Your task to perform on an android device: change keyboard looks Image 0: 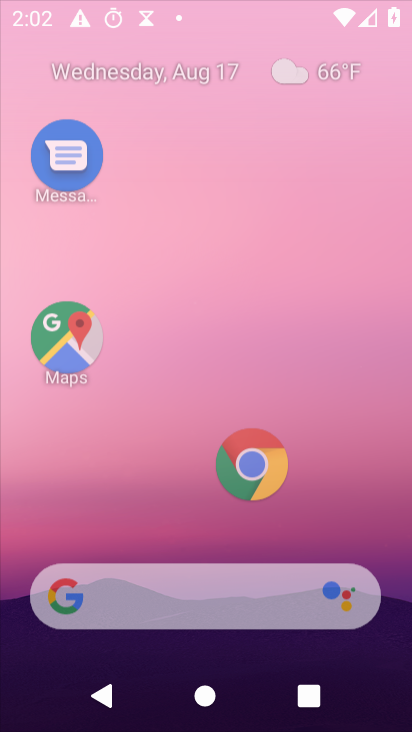
Step 0: press home button
Your task to perform on an android device: change keyboard looks Image 1: 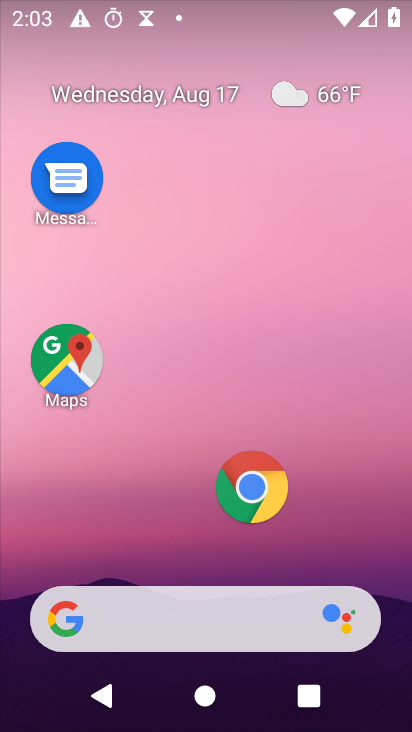
Step 1: drag from (169, 571) to (110, 10)
Your task to perform on an android device: change keyboard looks Image 2: 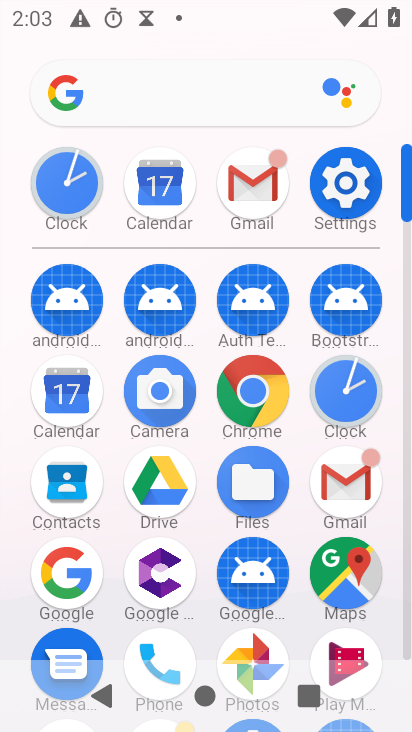
Step 2: click (345, 188)
Your task to perform on an android device: change keyboard looks Image 3: 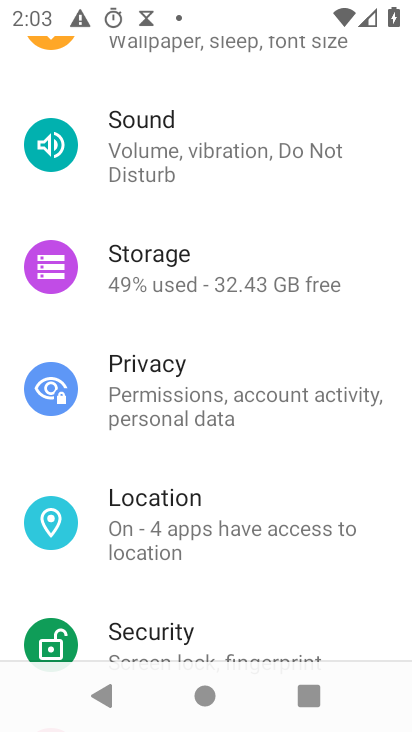
Step 3: drag from (329, 606) to (289, 0)
Your task to perform on an android device: change keyboard looks Image 4: 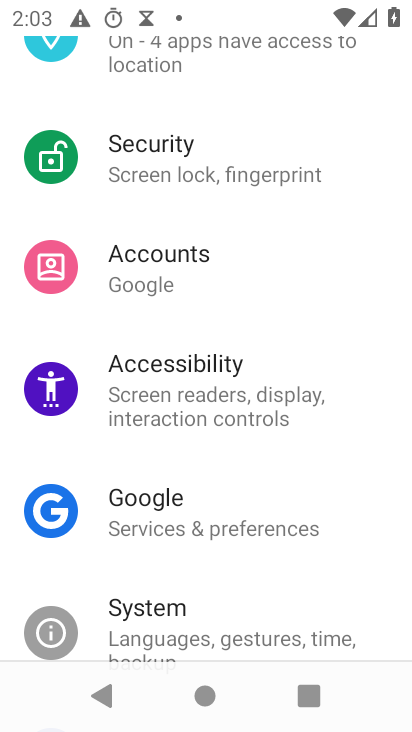
Step 4: click (133, 627)
Your task to perform on an android device: change keyboard looks Image 5: 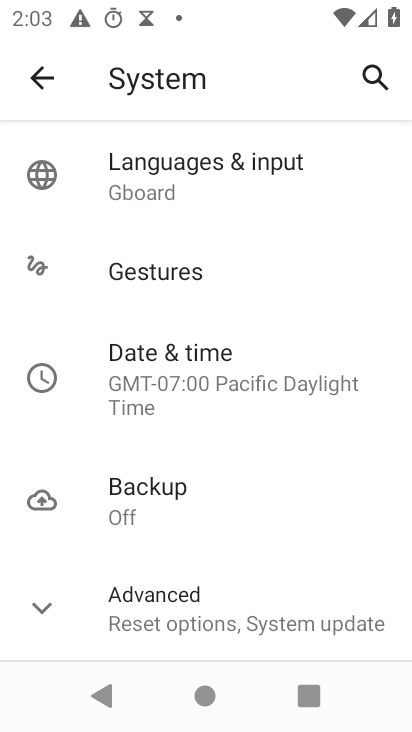
Step 5: click (183, 160)
Your task to perform on an android device: change keyboard looks Image 6: 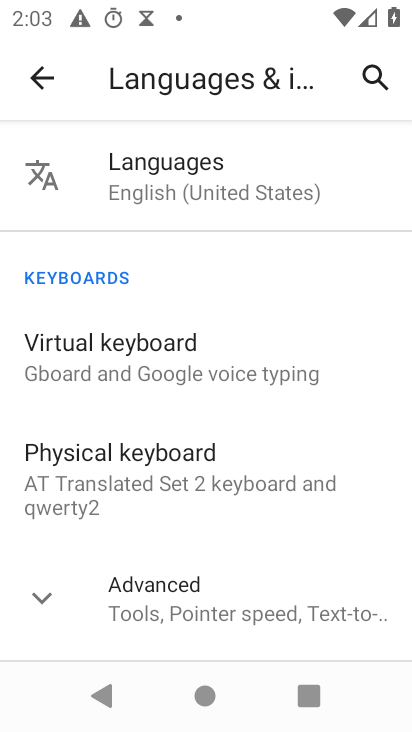
Step 6: click (131, 355)
Your task to perform on an android device: change keyboard looks Image 7: 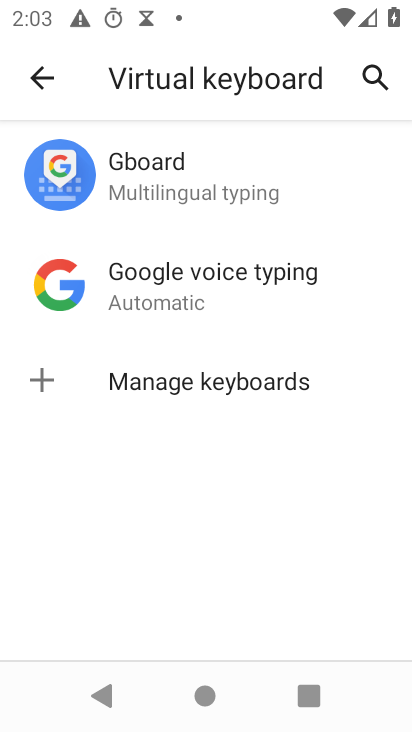
Step 7: click (128, 171)
Your task to perform on an android device: change keyboard looks Image 8: 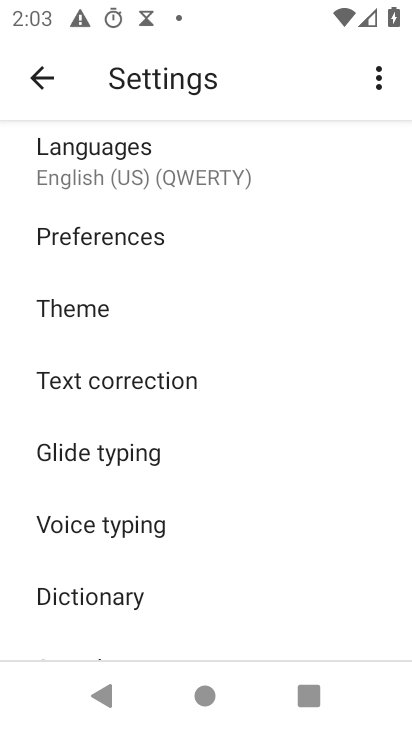
Step 8: click (59, 318)
Your task to perform on an android device: change keyboard looks Image 9: 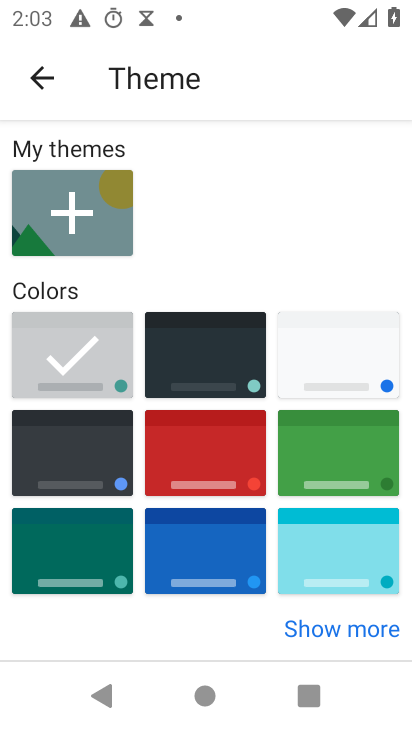
Step 9: click (194, 357)
Your task to perform on an android device: change keyboard looks Image 10: 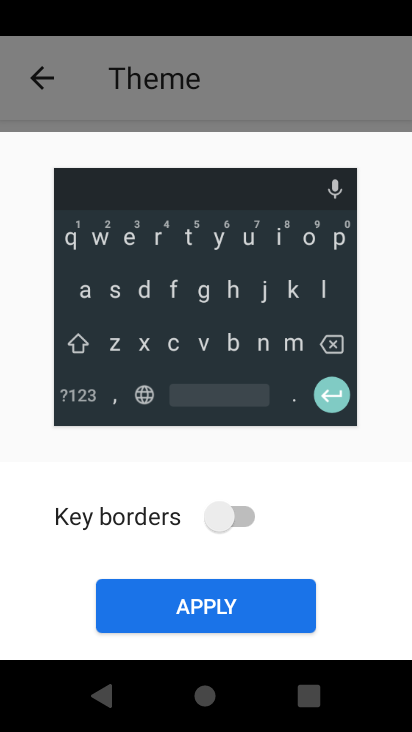
Step 10: click (116, 612)
Your task to perform on an android device: change keyboard looks Image 11: 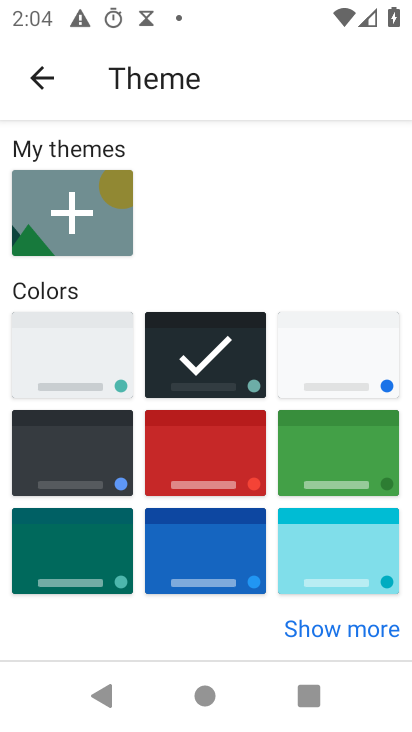
Step 11: task complete